Your task to perform on an android device: Go to eBay Image 0: 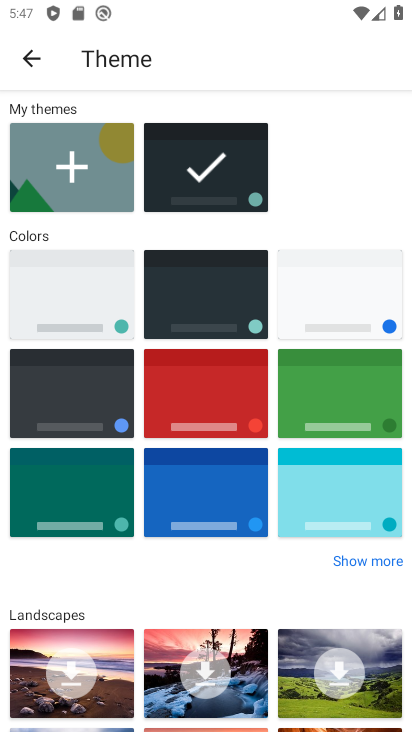
Step 0: press home button
Your task to perform on an android device: Go to eBay Image 1: 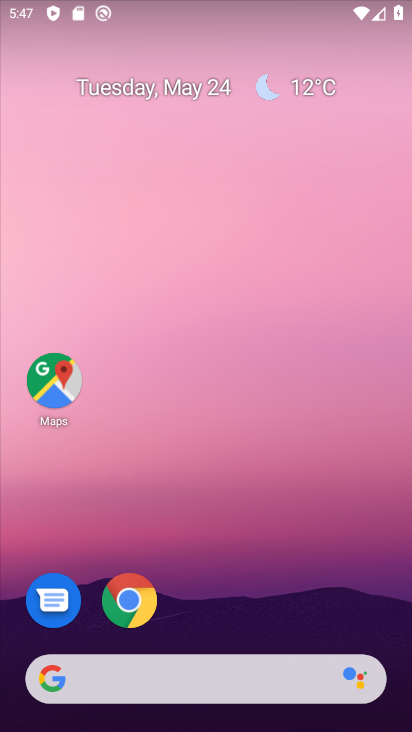
Step 1: drag from (309, 676) to (367, 96)
Your task to perform on an android device: Go to eBay Image 2: 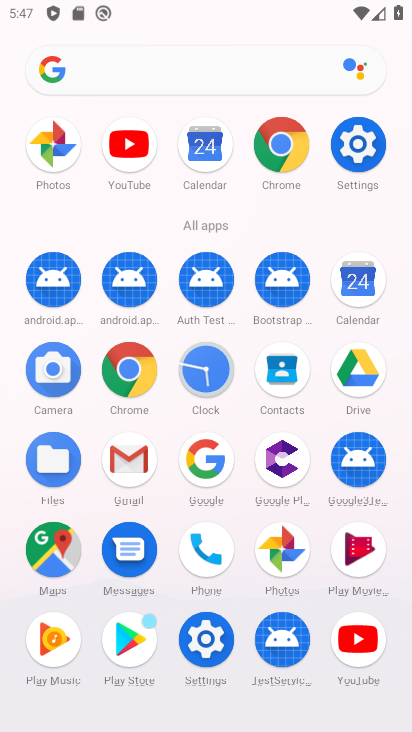
Step 2: click (138, 375)
Your task to perform on an android device: Go to eBay Image 3: 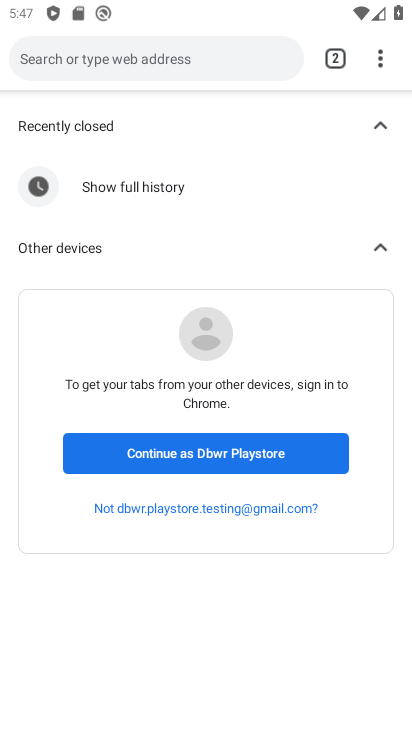
Step 3: click (103, 52)
Your task to perform on an android device: Go to eBay Image 4: 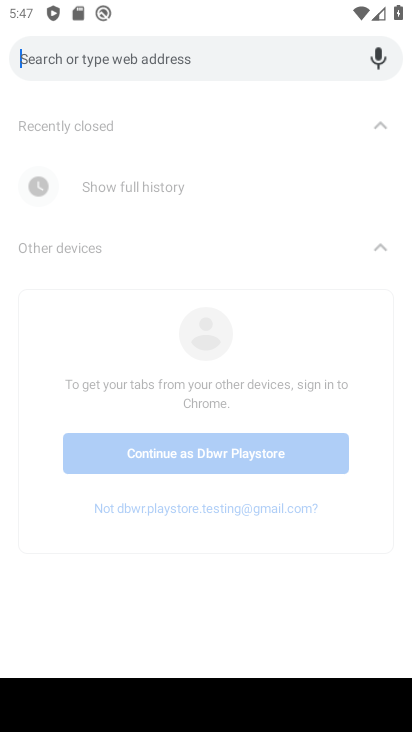
Step 4: type "ebay"
Your task to perform on an android device: Go to eBay Image 5: 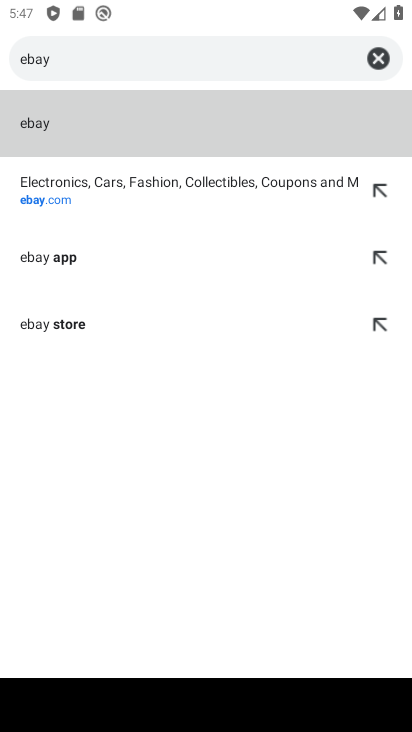
Step 5: click (71, 209)
Your task to perform on an android device: Go to eBay Image 6: 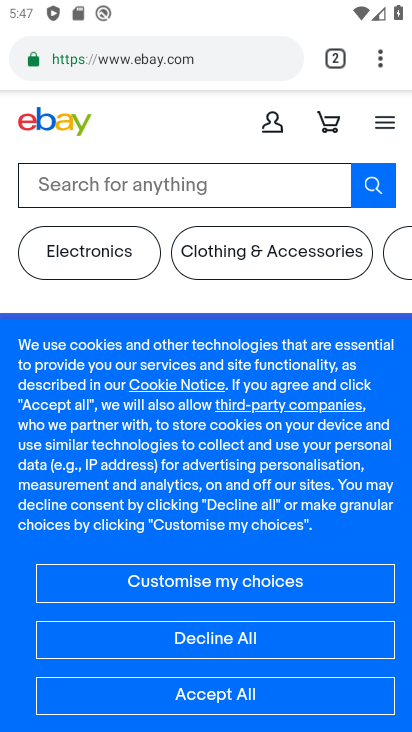
Step 6: task complete